Your task to perform on an android device: open chrome privacy settings Image 0: 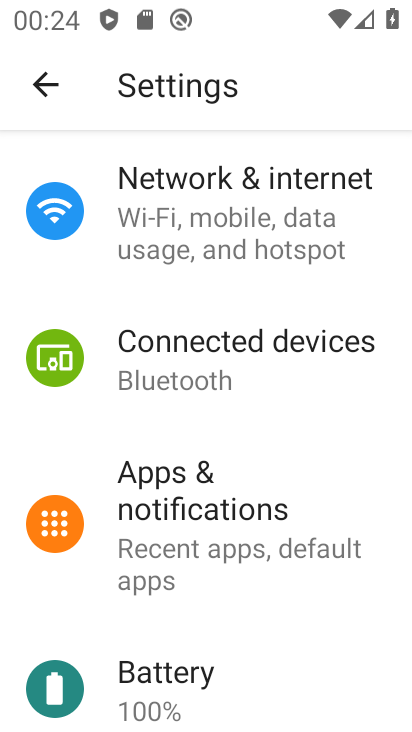
Step 0: press home button
Your task to perform on an android device: open chrome privacy settings Image 1: 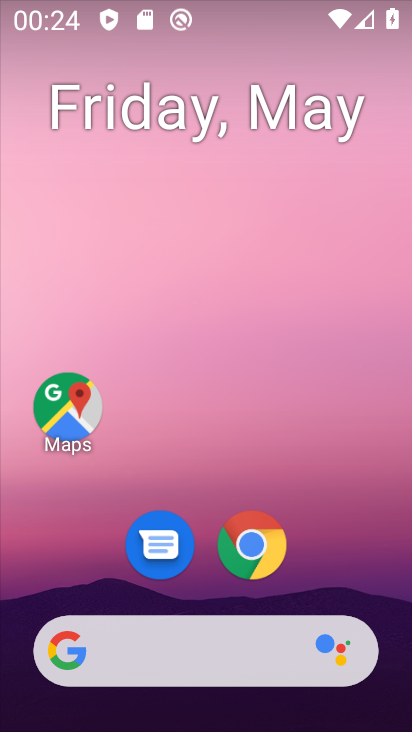
Step 1: click (240, 558)
Your task to perform on an android device: open chrome privacy settings Image 2: 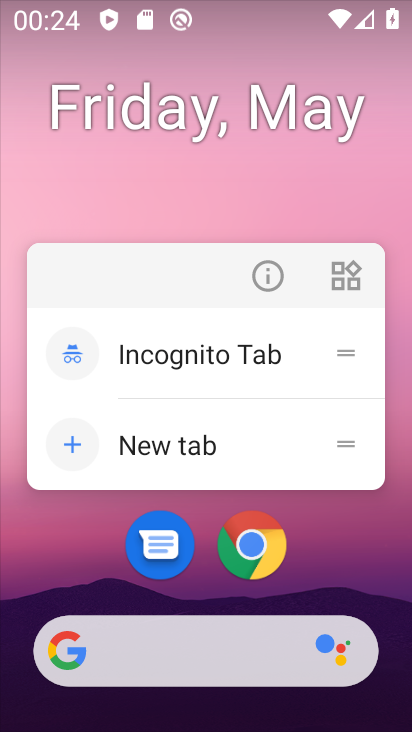
Step 2: click (243, 541)
Your task to perform on an android device: open chrome privacy settings Image 3: 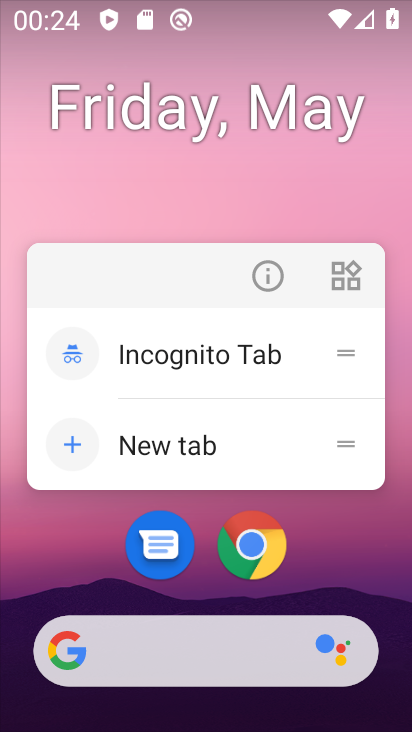
Step 3: click (254, 557)
Your task to perform on an android device: open chrome privacy settings Image 4: 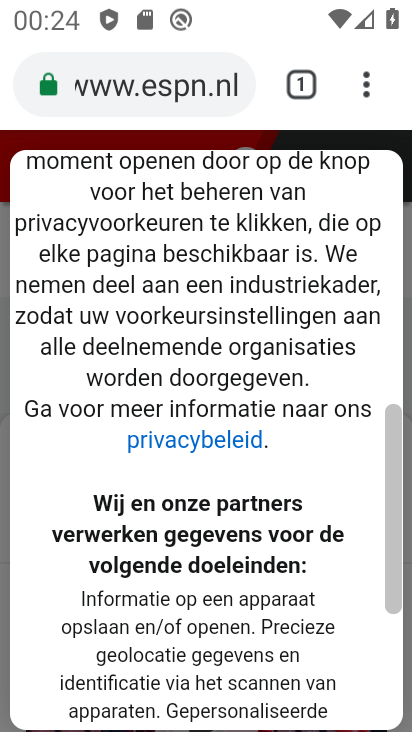
Step 4: click (360, 96)
Your task to perform on an android device: open chrome privacy settings Image 5: 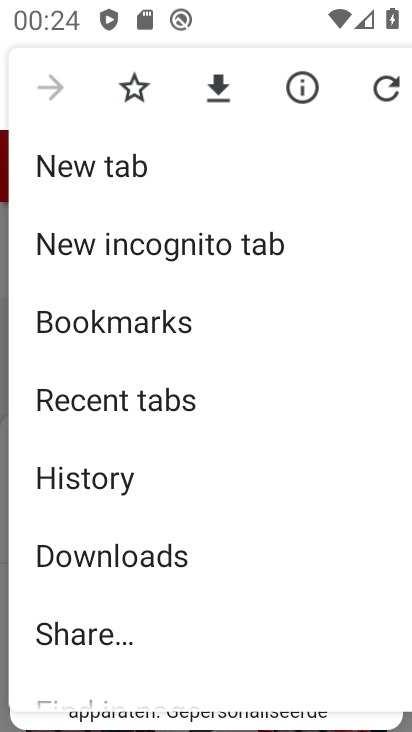
Step 5: drag from (133, 566) to (190, 282)
Your task to perform on an android device: open chrome privacy settings Image 6: 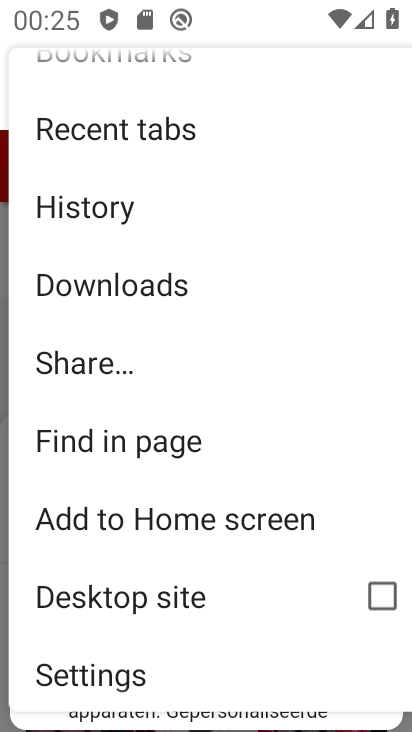
Step 6: click (125, 669)
Your task to perform on an android device: open chrome privacy settings Image 7: 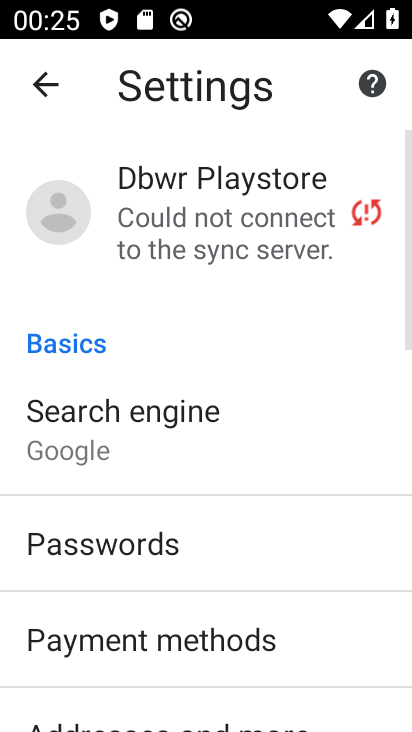
Step 7: drag from (134, 621) to (202, 176)
Your task to perform on an android device: open chrome privacy settings Image 8: 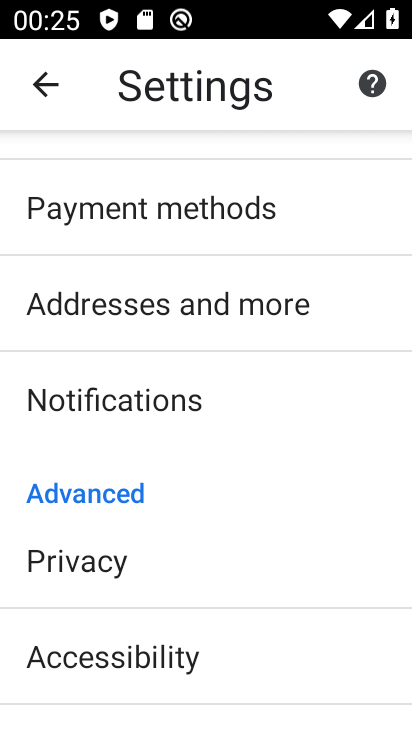
Step 8: click (161, 564)
Your task to perform on an android device: open chrome privacy settings Image 9: 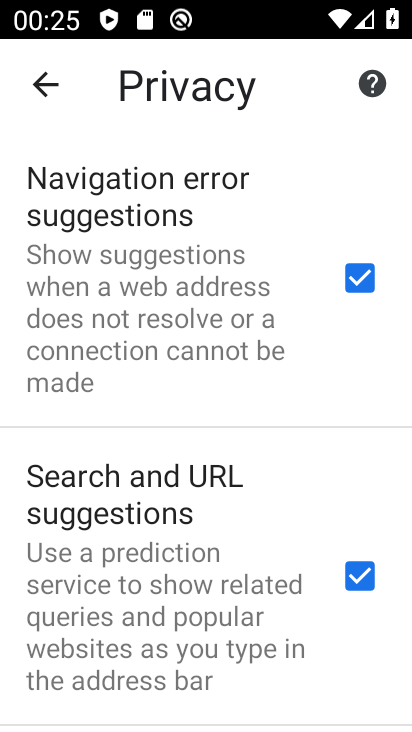
Step 9: task complete